Your task to perform on an android device: toggle javascript in the chrome app Image 0: 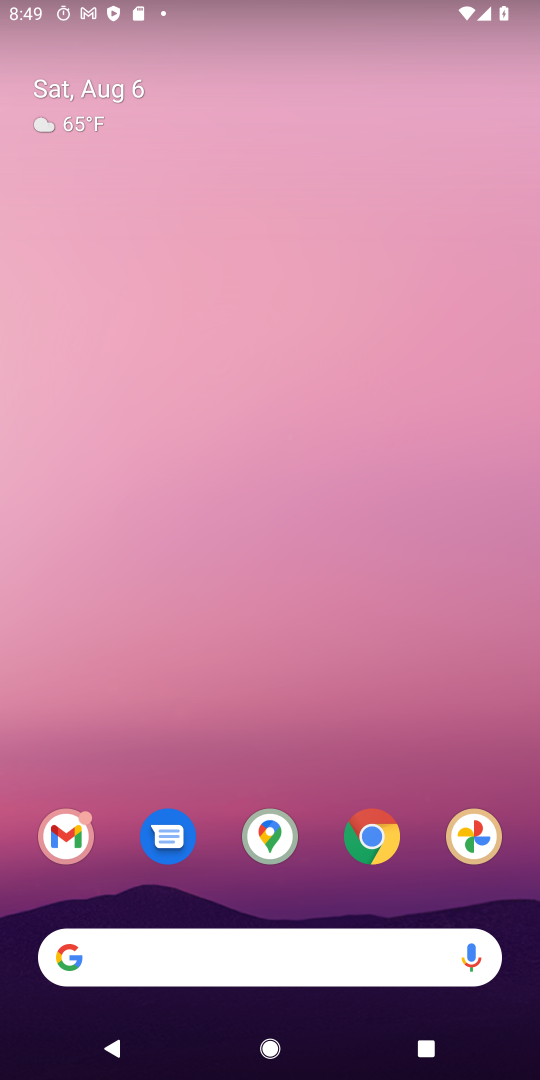
Step 0: drag from (424, 897) to (260, 117)
Your task to perform on an android device: toggle javascript in the chrome app Image 1: 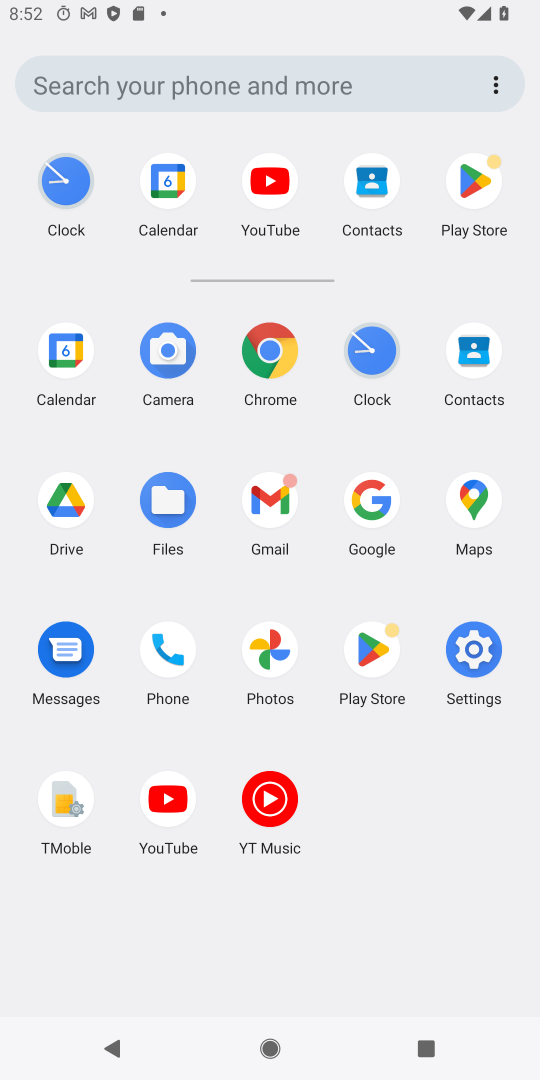
Step 1: click (277, 368)
Your task to perform on an android device: toggle javascript in the chrome app Image 2: 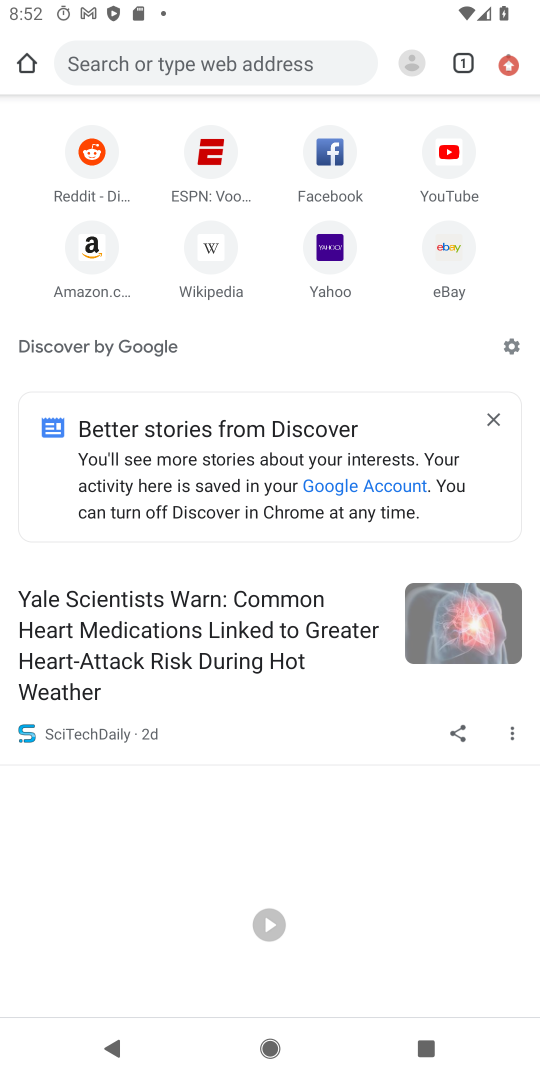
Step 2: click (511, 59)
Your task to perform on an android device: toggle javascript in the chrome app Image 3: 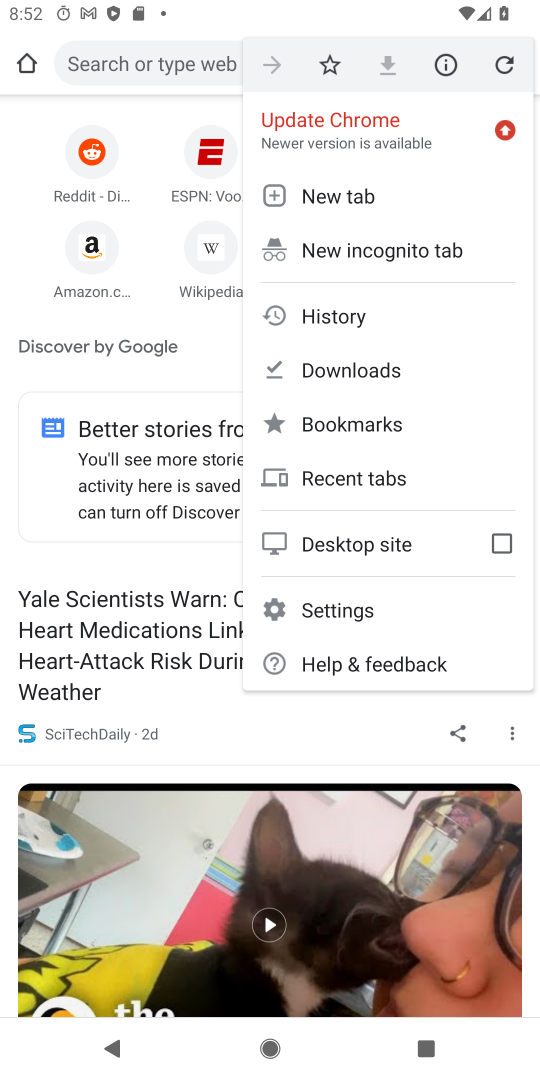
Step 3: click (357, 621)
Your task to perform on an android device: toggle javascript in the chrome app Image 4: 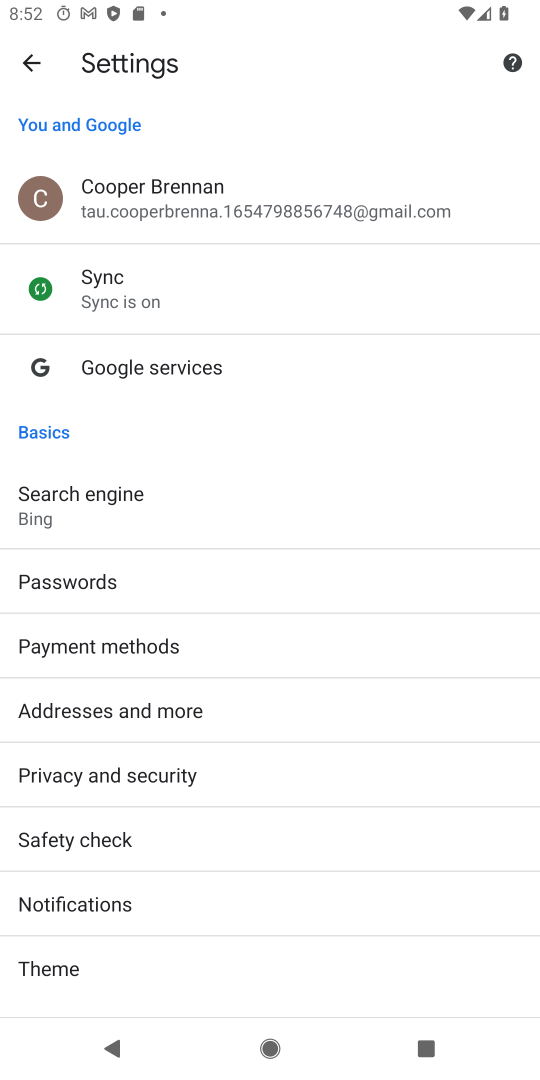
Step 4: drag from (167, 923) to (264, 264)
Your task to perform on an android device: toggle javascript in the chrome app Image 5: 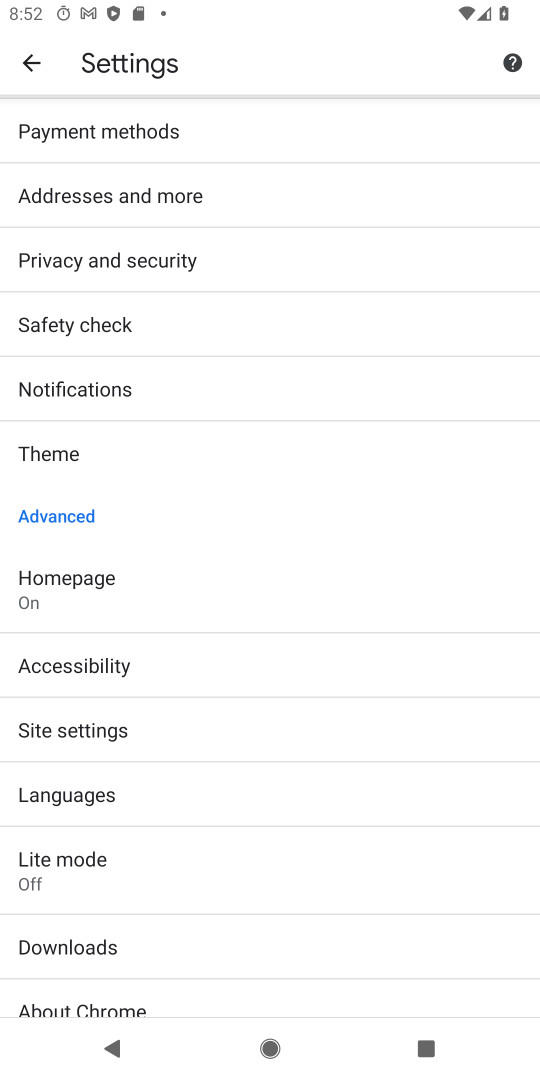
Step 5: click (123, 749)
Your task to perform on an android device: toggle javascript in the chrome app Image 6: 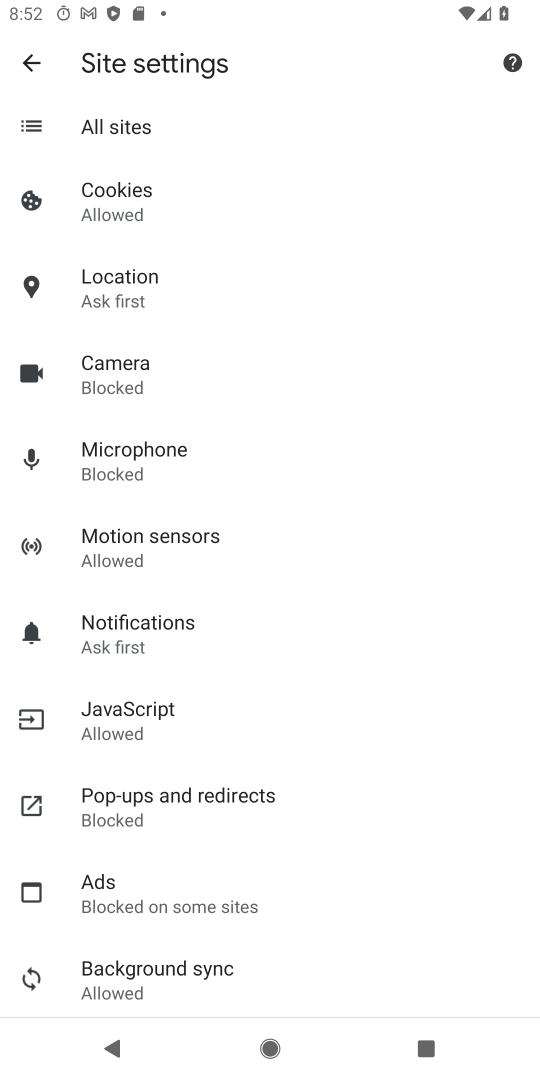
Step 6: click (158, 723)
Your task to perform on an android device: toggle javascript in the chrome app Image 7: 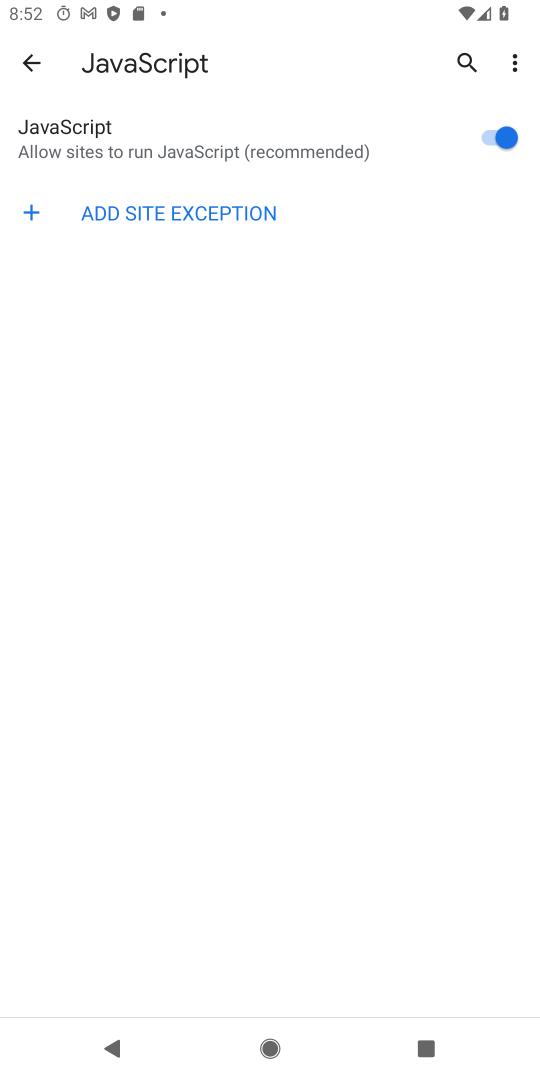
Step 7: click (445, 129)
Your task to perform on an android device: toggle javascript in the chrome app Image 8: 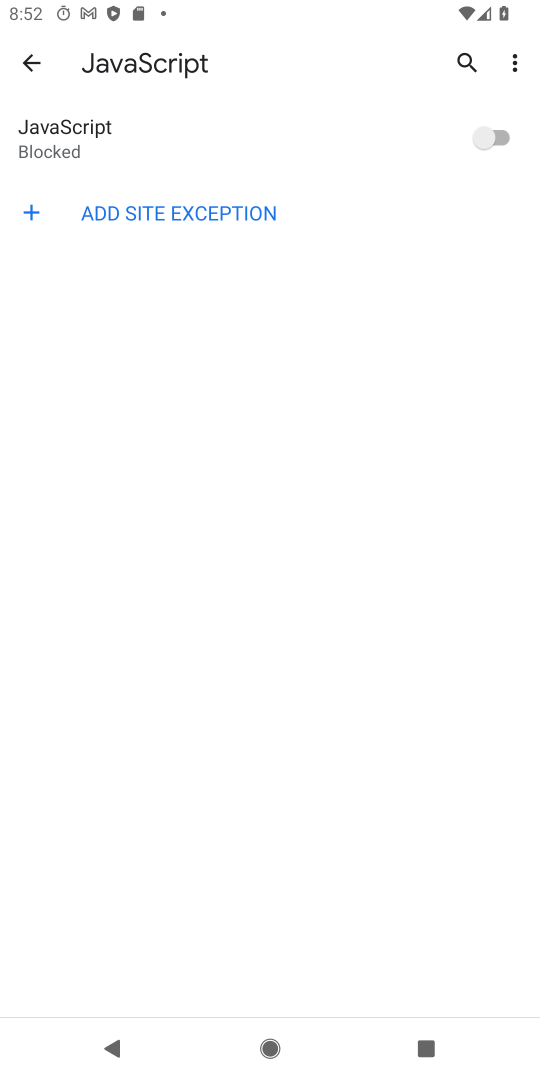
Step 8: task complete